Your task to perform on an android device: When is my next meeting? Image 0: 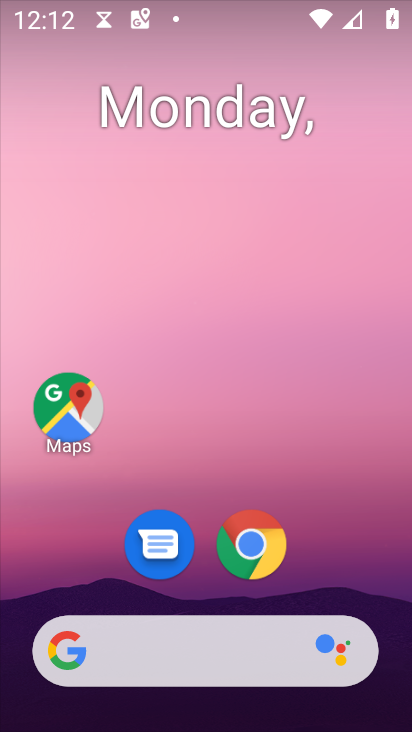
Step 0: drag from (340, 607) to (337, 310)
Your task to perform on an android device: When is my next meeting? Image 1: 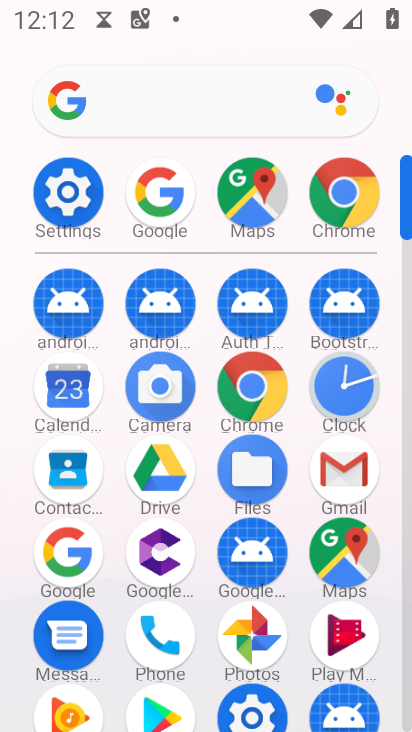
Step 1: click (44, 385)
Your task to perform on an android device: When is my next meeting? Image 2: 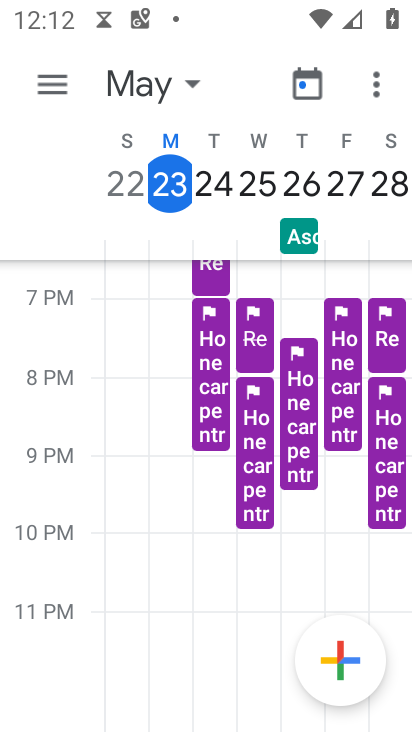
Step 2: click (224, 188)
Your task to perform on an android device: When is my next meeting? Image 3: 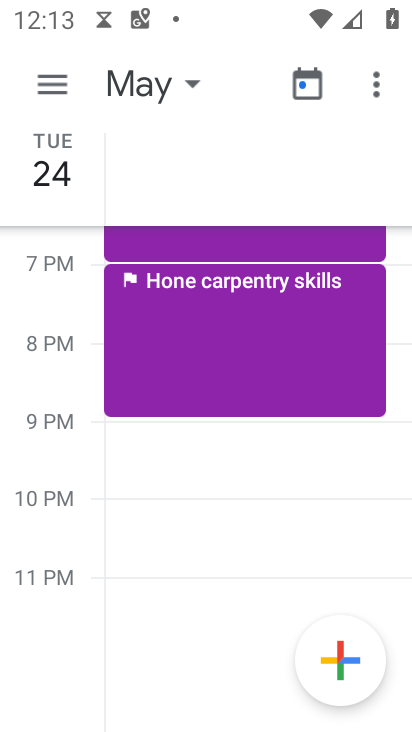
Step 3: task complete